Your task to perform on an android device: Open settings Image 0: 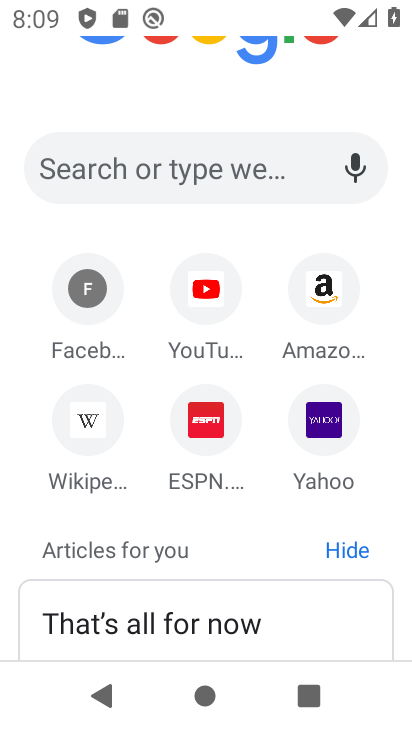
Step 0: press home button
Your task to perform on an android device: Open settings Image 1: 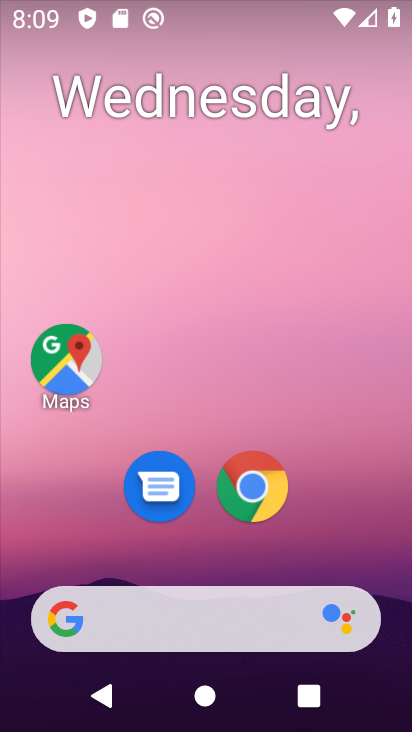
Step 1: drag from (396, 610) to (356, 67)
Your task to perform on an android device: Open settings Image 2: 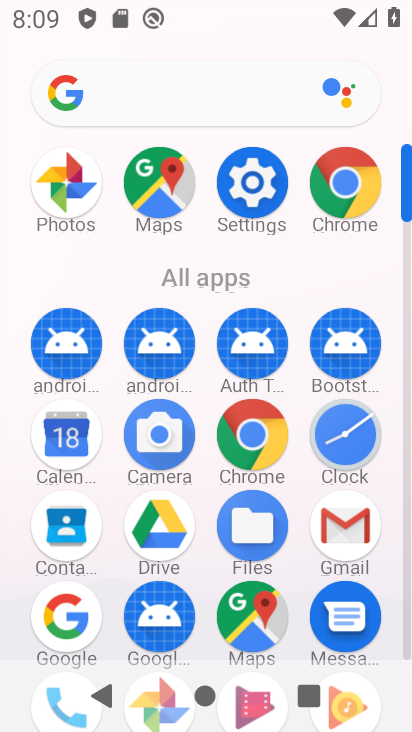
Step 2: click (404, 633)
Your task to perform on an android device: Open settings Image 3: 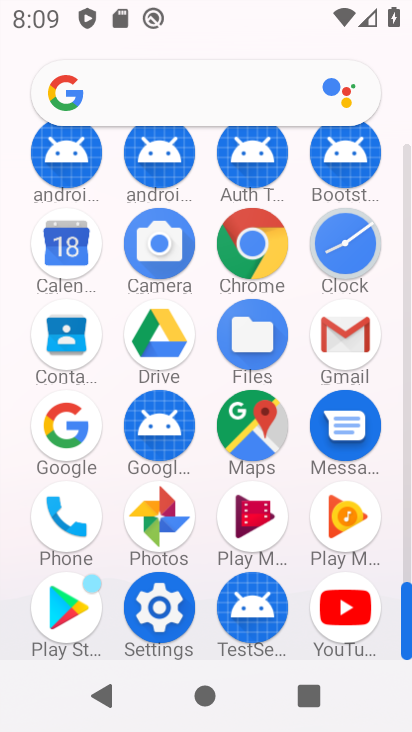
Step 3: click (159, 608)
Your task to perform on an android device: Open settings Image 4: 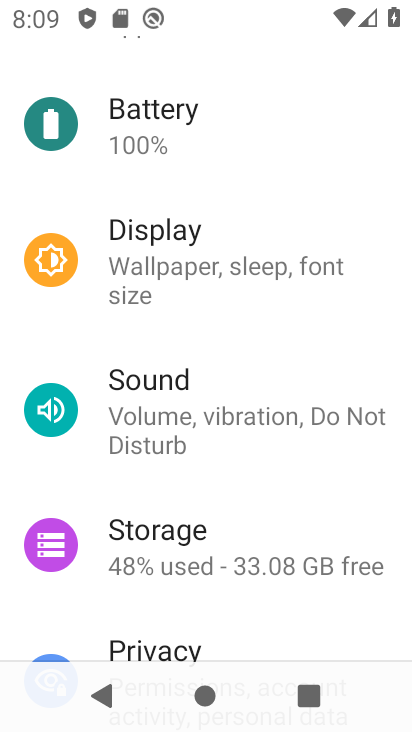
Step 4: task complete